Your task to perform on an android device: turn off airplane mode Image 0: 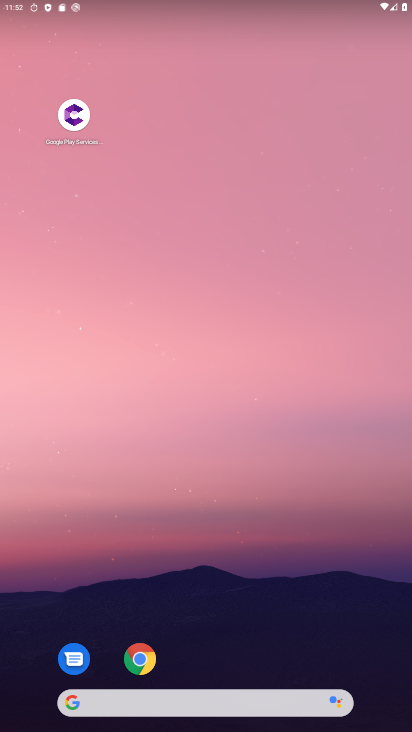
Step 0: drag from (234, 527) to (393, 362)
Your task to perform on an android device: turn off airplane mode Image 1: 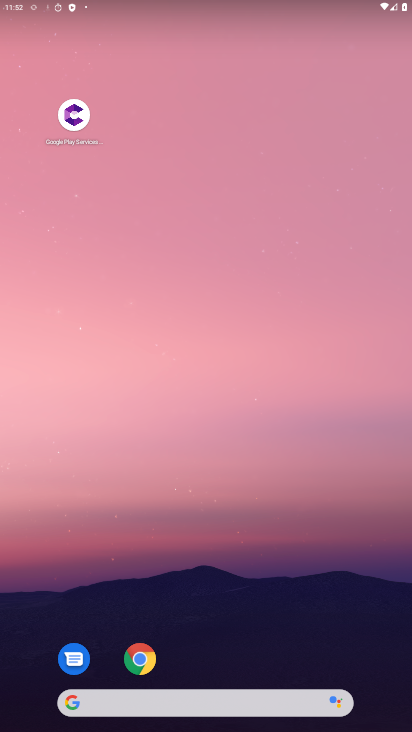
Step 1: drag from (214, 649) to (357, 43)
Your task to perform on an android device: turn off airplane mode Image 2: 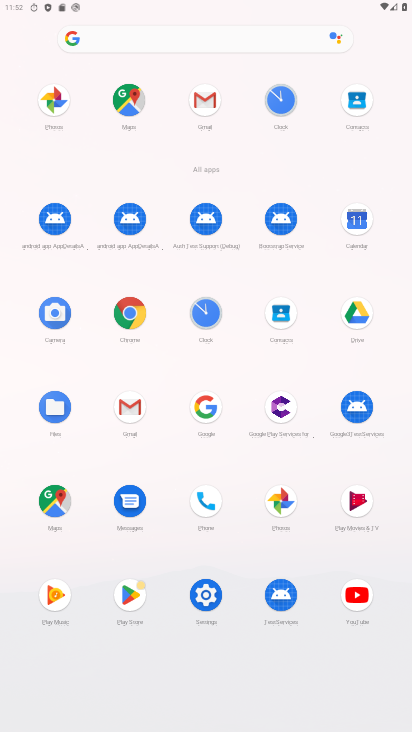
Step 2: click (206, 619)
Your task to perform on an android device: turn off airplane mode Image 3: 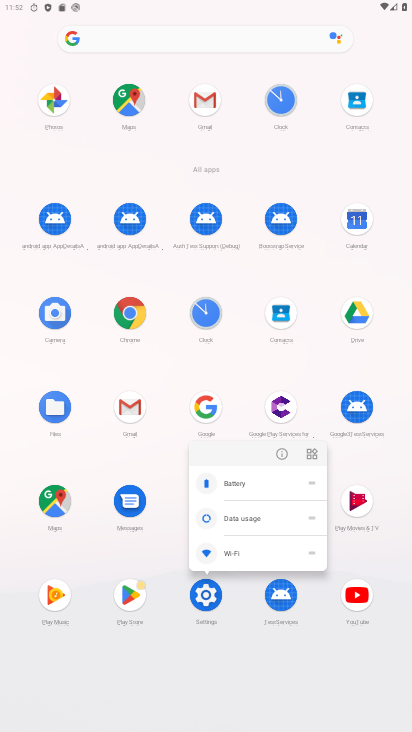
Step 3: click (207, 598)
Your task to perform on an android device: turn off airplane mode Image 4: 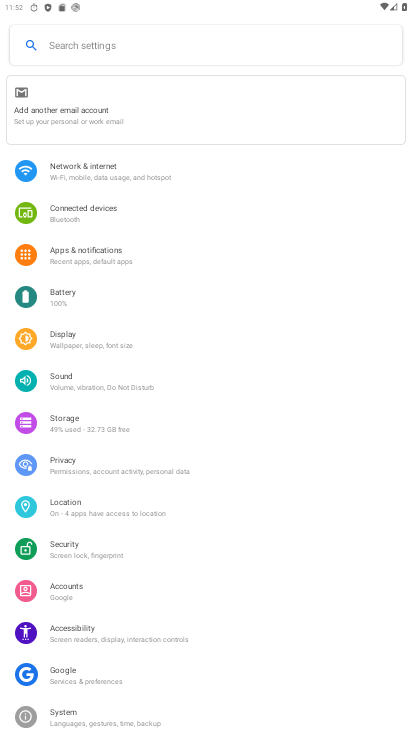
Step 4: click (102, 172)
Your task to perform on an android device: turn off airplane mode Image 5: 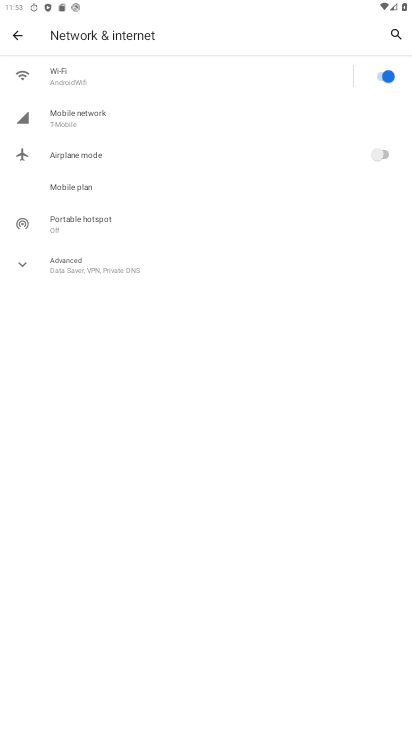
Step 5: task complete